Your task to perform on an android device: open a new tab in the chrome app Image 0: 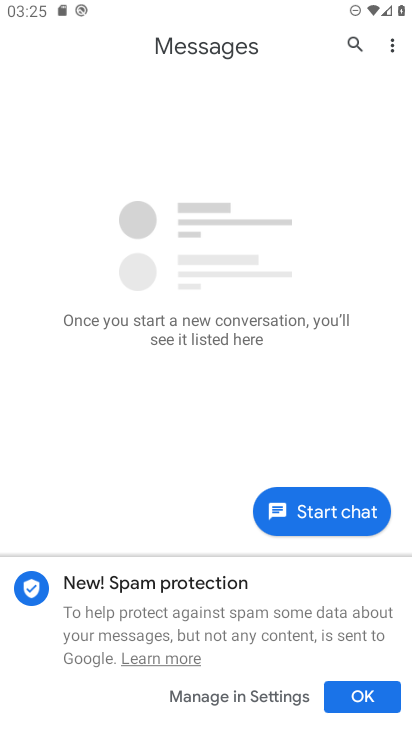
Step 0: press home button
Your task to perform on an android device: open a new tab in the chrome app Image 1: 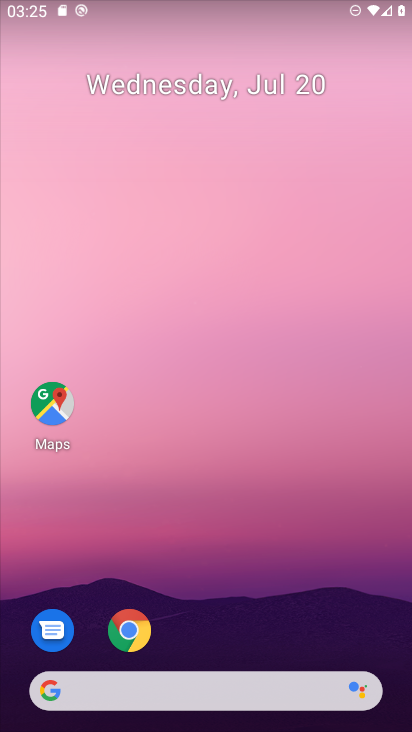
Step 1: drag from (320, 630) to (350, 111)
Your task to perform on an android device: open a new tab in the chrome app Image 2: 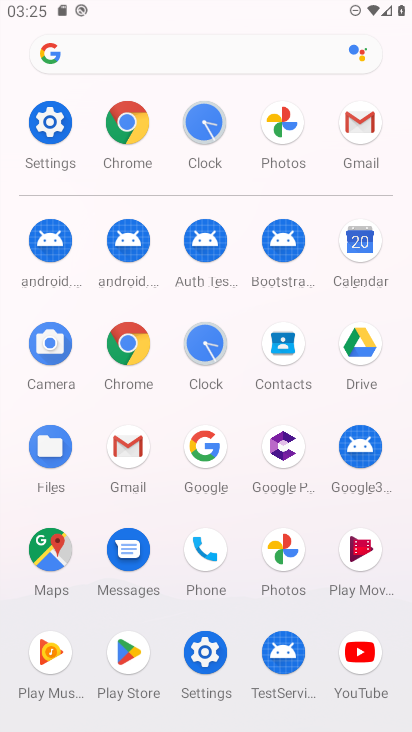
Step 2: click (132, 342)
Your task to perform on an android device: open a new tab in the chrome app Image 3: 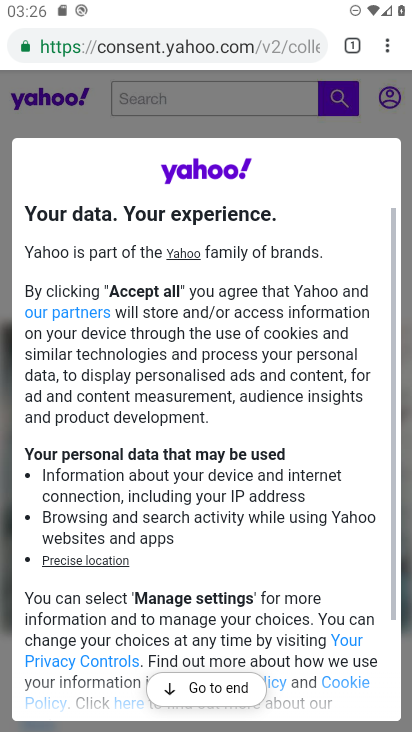
Step 3: click (386, 45)
Your task to perform on an android device: open a new tab in the chrome app Image 4: 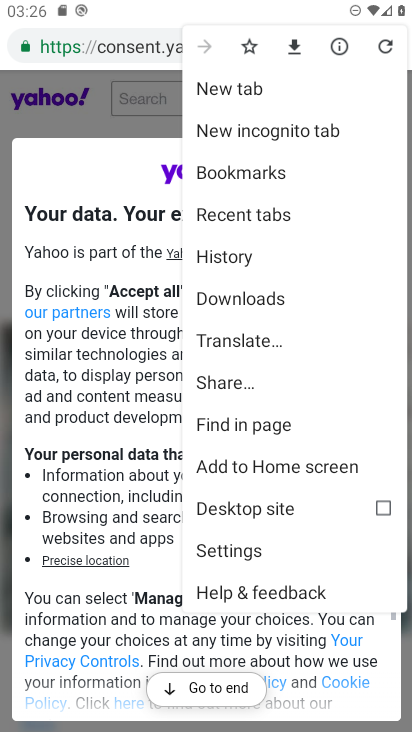
Step 4: click (276, 90)
Your task to perform on an android device: open a new tab in the chrome app Image 5: 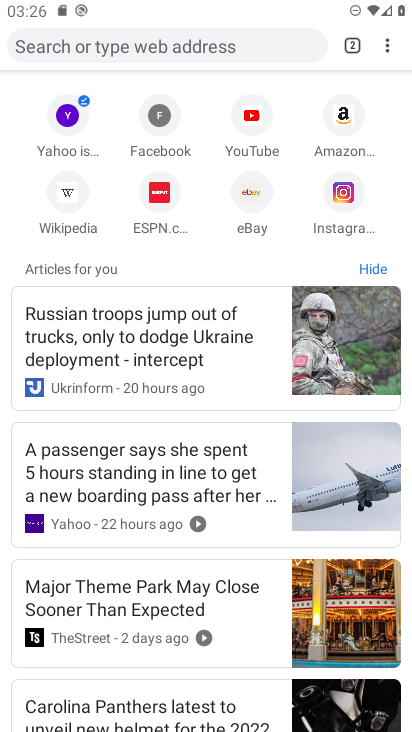
Step 5: task complete